Your task to perform on an android device: turn off data saver in the chrome app Image 0: 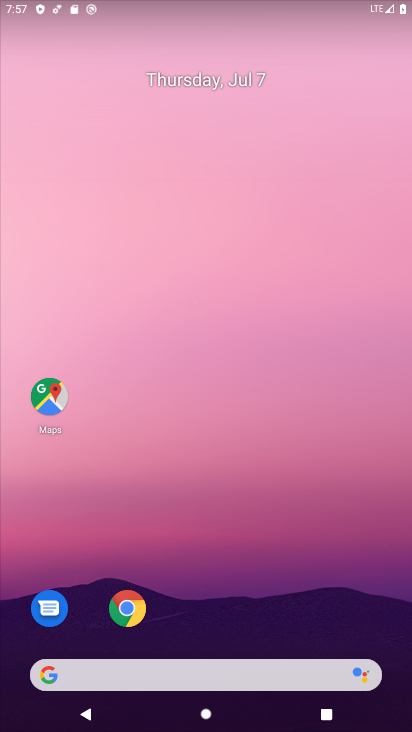
Step 0: click (131, 609)
Your task to perform on an android device: turn off data saver in the chrome app Image 1: 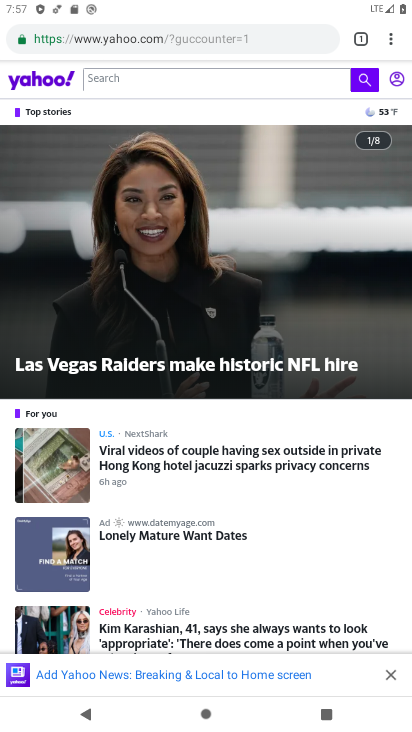
Step 1: click (388, 44)
Your task to perform on an android device: turn off data saver in the chrome app Image 2: 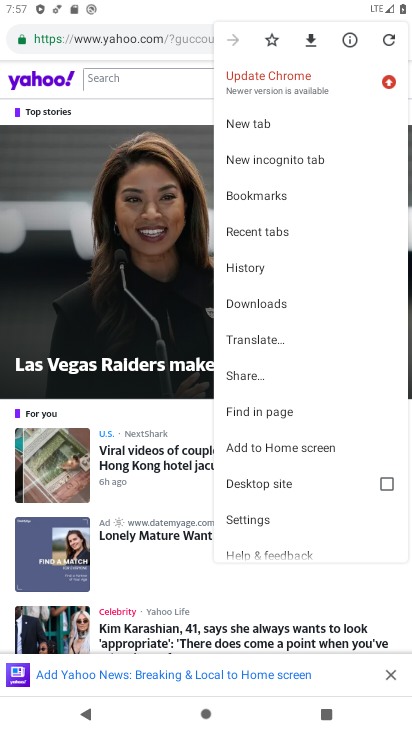
Step 2: click (256, 515)
Your task to perform on an android device: turn off data saver in the chrome app Image 3: 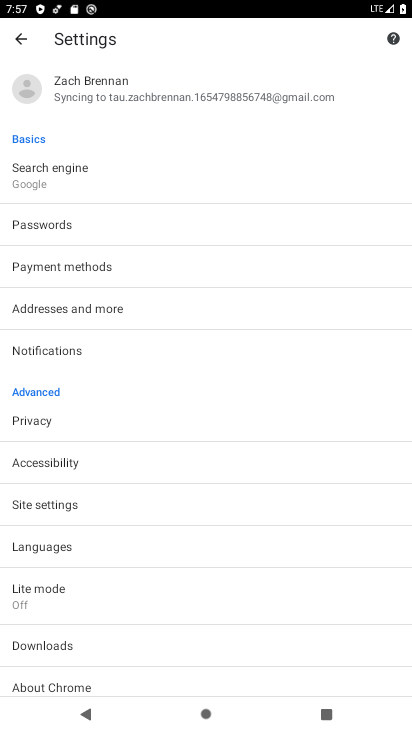
Step 3: click (28, 594)
Your task to perform on an android device: turn off data saver in the chrome app Image 4: 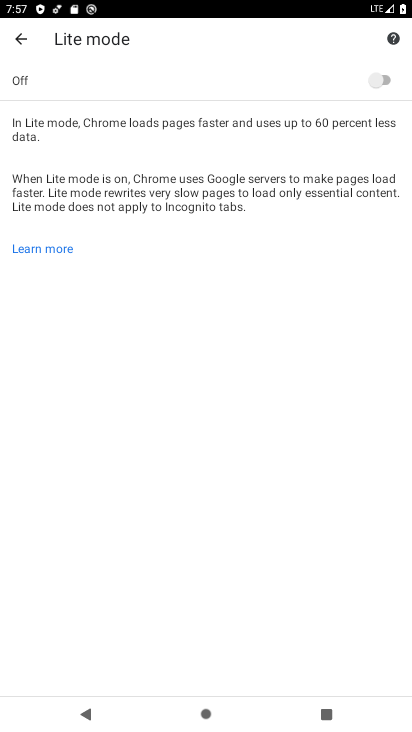
Step 4: task complete